Your task to perform on an android device: refresh tabs in the chrome app Image 0: 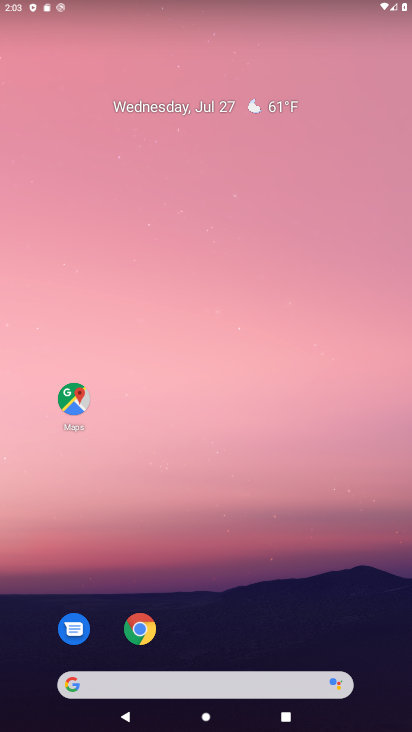
Step 0: click (140, 629)
Your task to perform on an android device: refresh tabs in the chrome app Image 1: 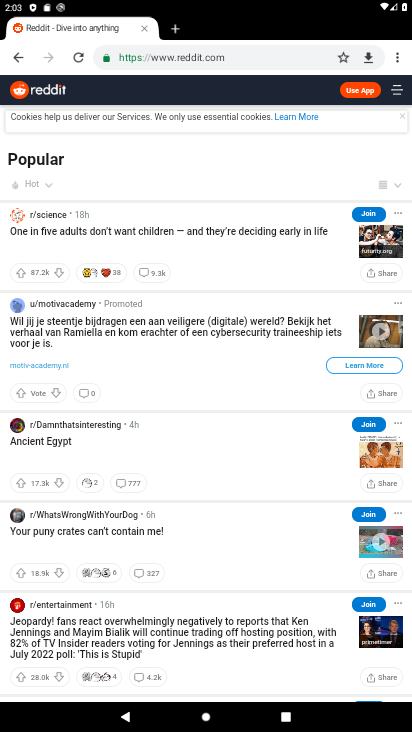
Step 1: click (78, 59)
Your task to perform on an android device: refresh tabs in the chrome app Image 2: 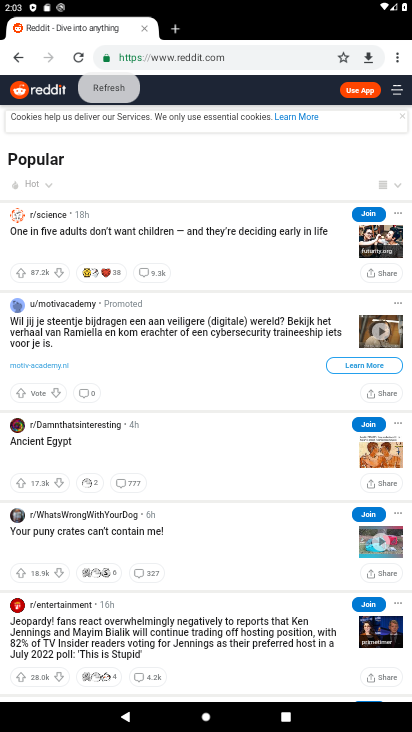
Step 2: click (78, 59)
Your task to perform on an android device: refresh tabs in the chrome app Image 3: 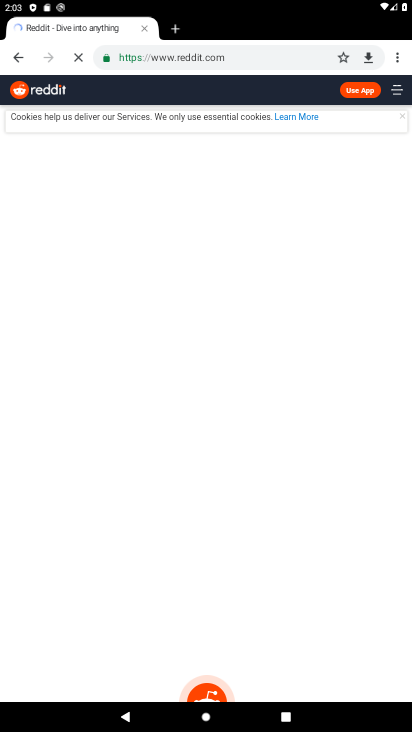
Step 3: task complete